Your task to perform on an android device: check android version Image 0: 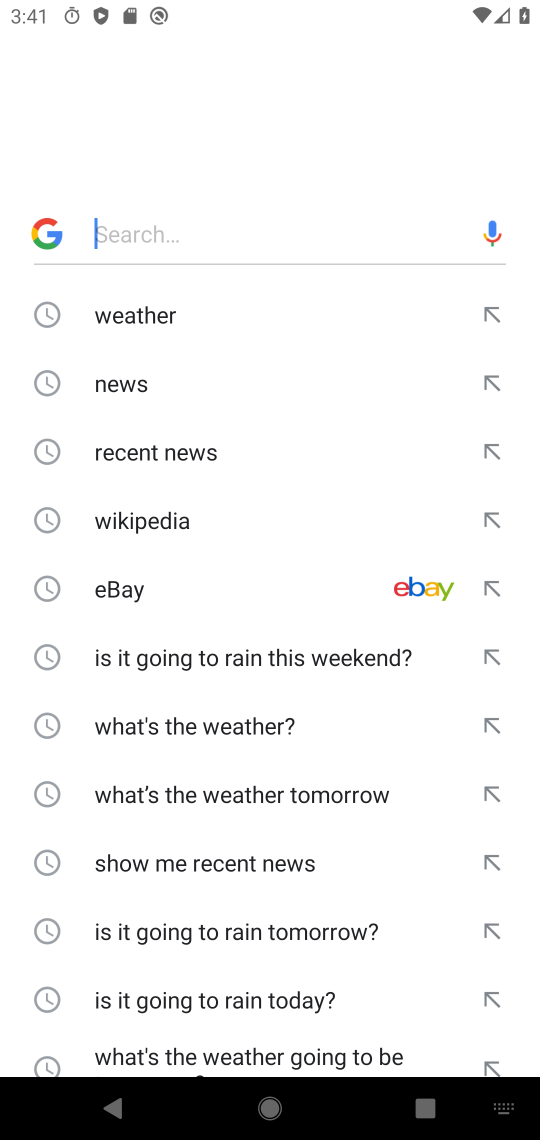
Step 0: press home button
Your task to perform on an android device: check android version Image 1: 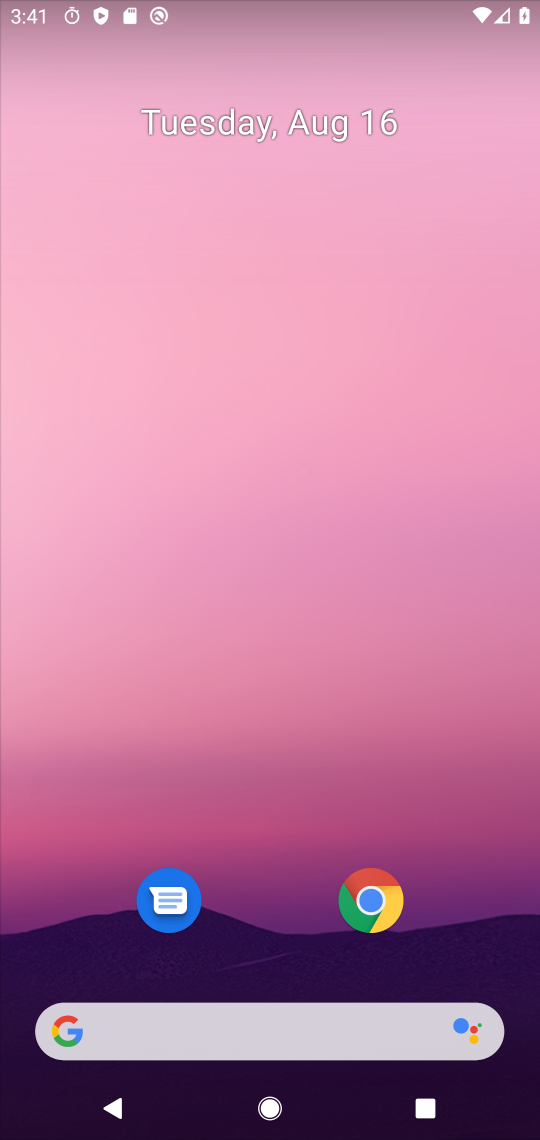
Step 1: drag from (282, 993) to (207, 156)
Your task to perform on an android device: check android version Image 2: 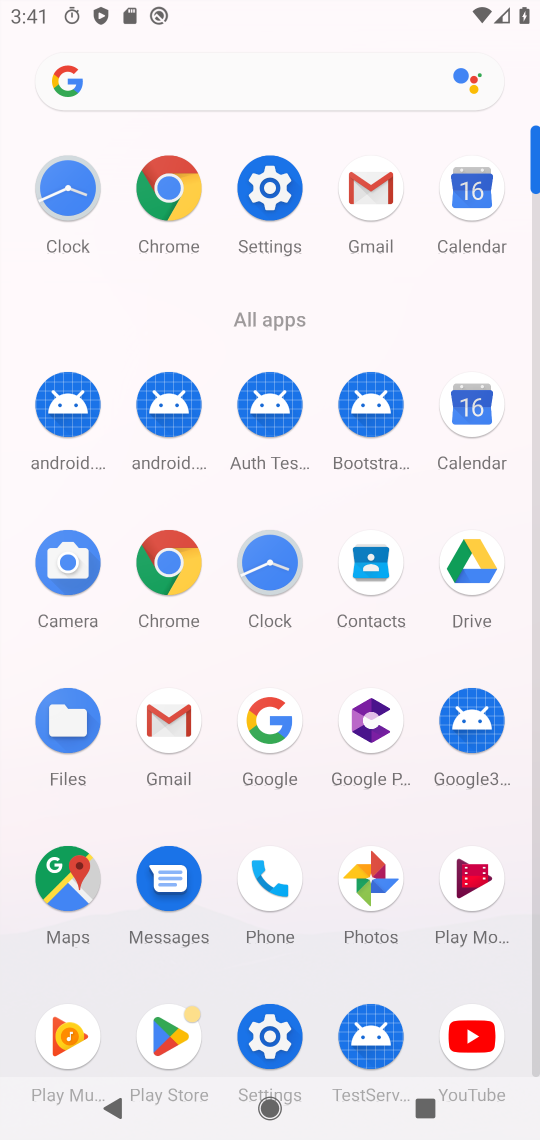
Step 2: click (268, 181)
Your task to perform on an android device: check android version Image 3: 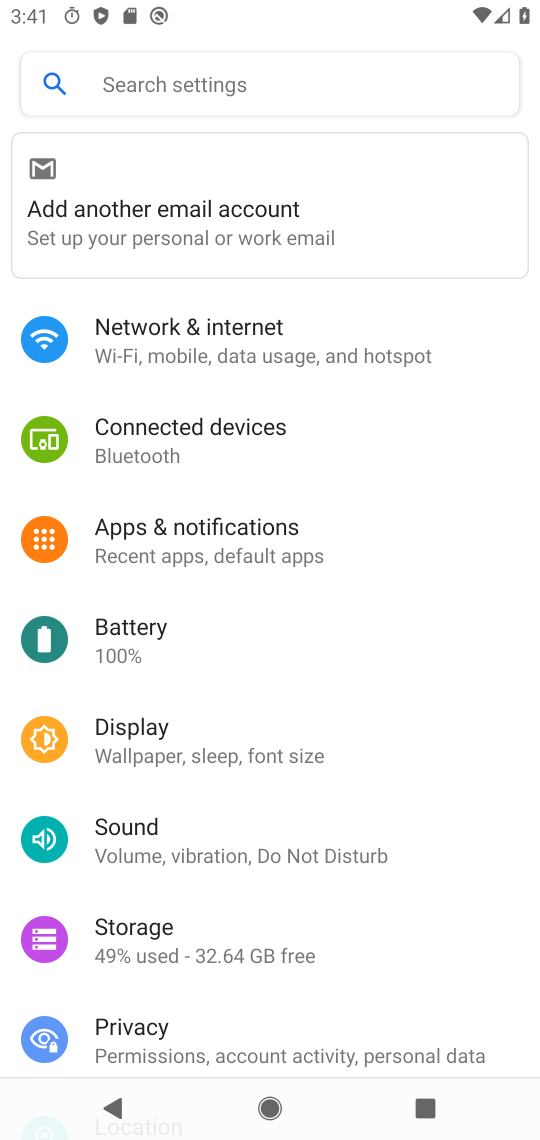
Step 3: drag from (165, 939) to (165, 417)
Your task to perform on an android device: check android version Image 4: 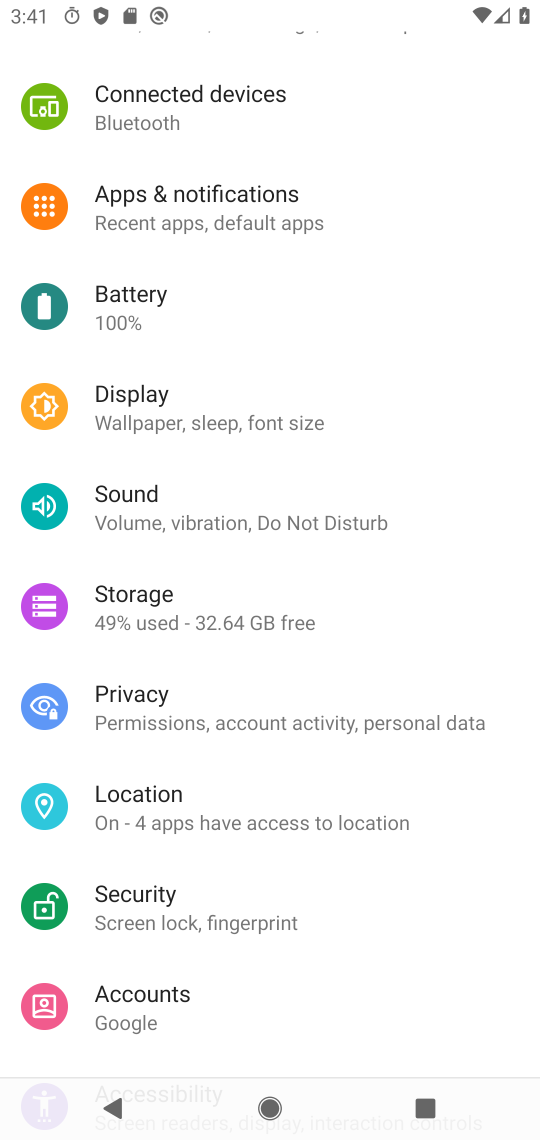
Step 4: drag from (171, 964) to (165, 495)
Your task to perform on an android device: check android version Image 5: 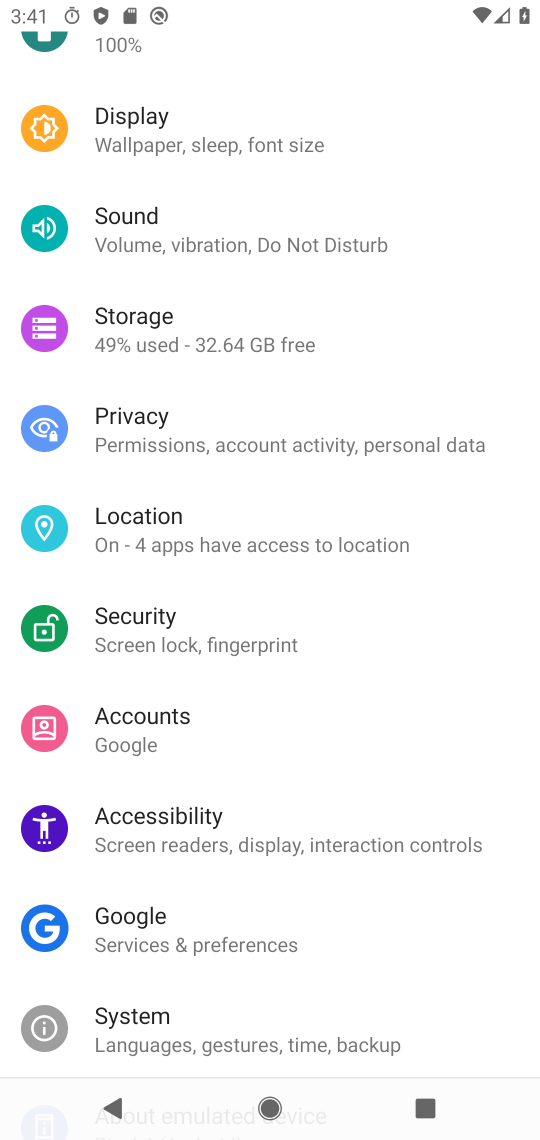
Step 5: drag from (222, 976) to (198, 503)
Your task to perform on an android device: check android version Image 6: 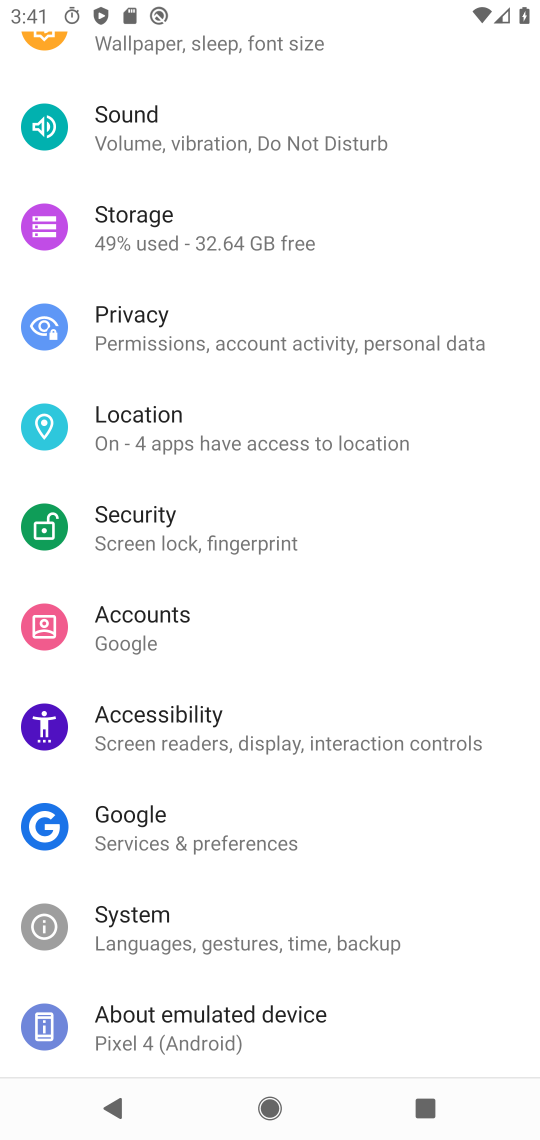
Step 6: click (137, 1038)
Your task to perform on an android device: check android version Image 7: 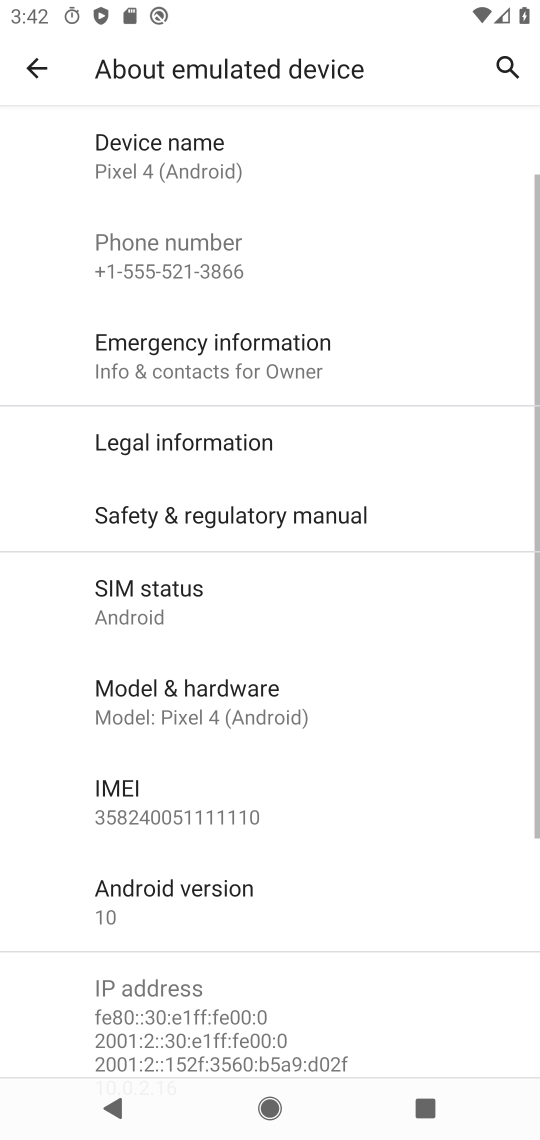
Step 7: click (193, 883)
Your task to perform on an android device: check android version Image 8: 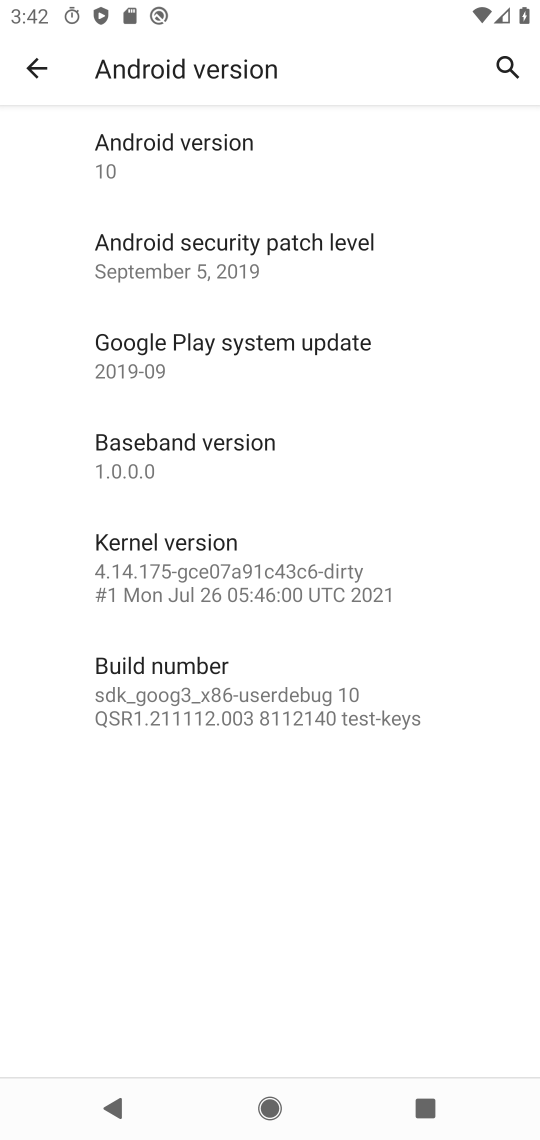
Step 8: task complete